Your task to perform on an android device: Open the Play Movies app and select the watchlist tab. Image 0: 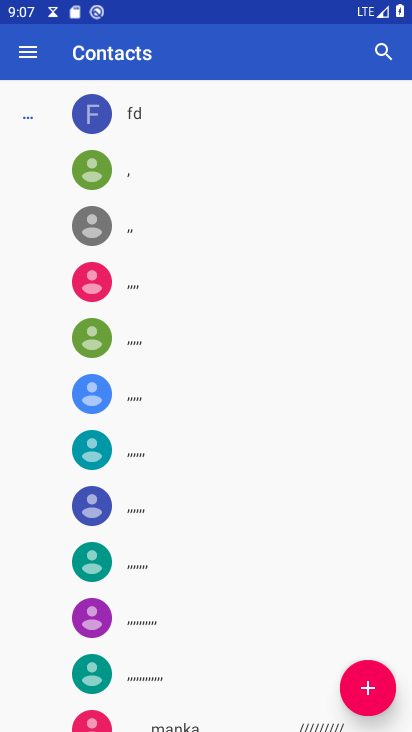
Step 0: press home button
Your task to perform on an android device: Open the Play Movies app and select the watchlist tab. Image 1: 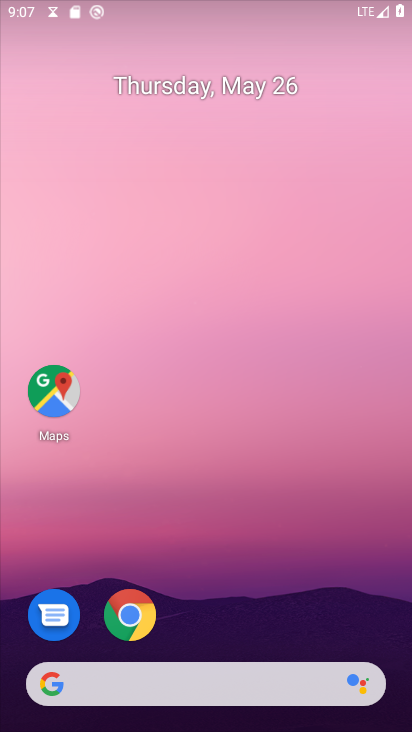
Step 1: drag from (227, 645) to (273, 176)
Your task to perform on an android device: Open the Play Movies app and select the watchlist tab. Image 2: 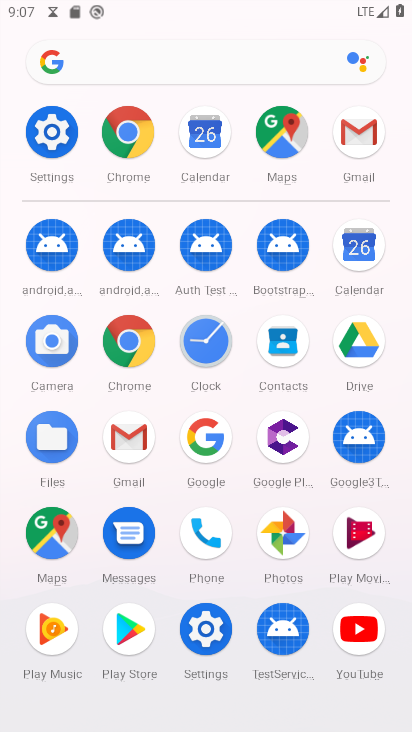
Step 2: click (347, 511)
Your task to perform on an android device: Open the Play Movies app and select the watchlist tab. Image 3: 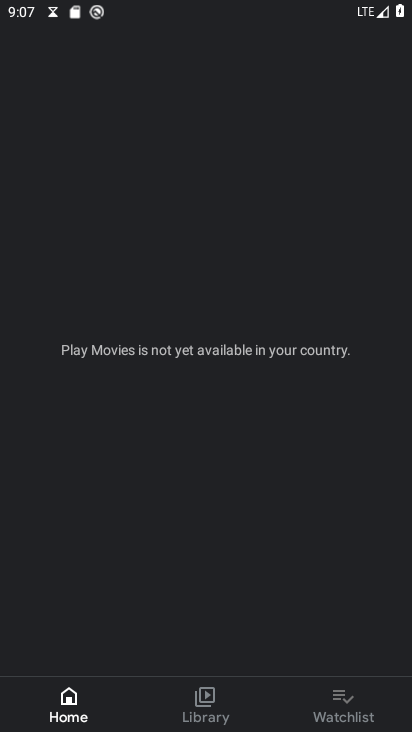
Step 3: click (325, 712)
Your task to perform on an android device: Open the Play Movies app and select the watchlist tab. Image 4: 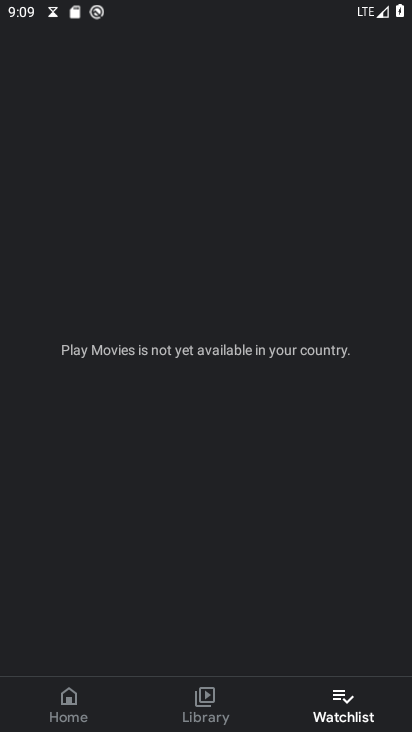
Step 4: task complete